Your task to perform on an android device: Open the web browser Image 0: 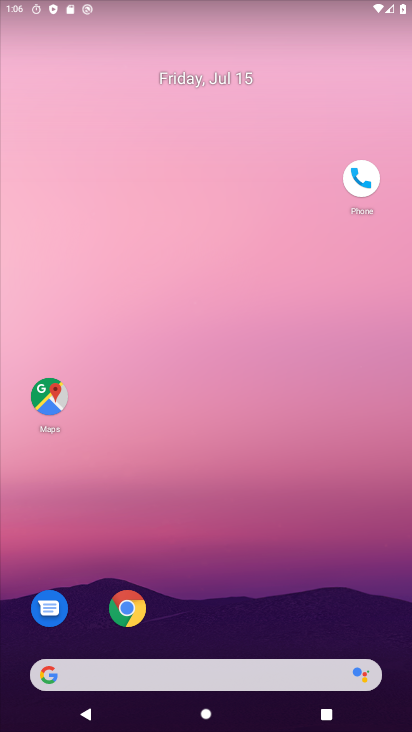
Step 0: drag from (214, 615) to (317, 130)
Your task to perform on an android device: Open the web browser Image 1: 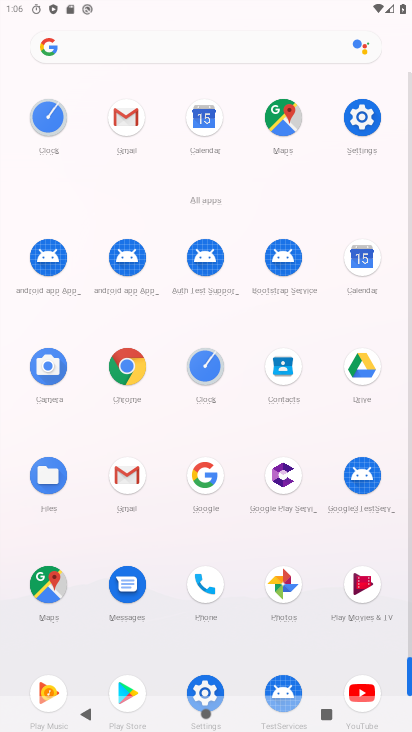
Step 1: click (132, 344)
Your task to perform on an android device: Open the web browser Image 2: 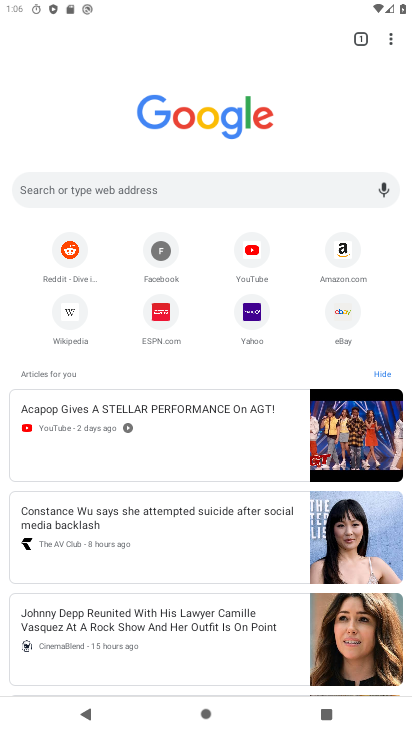
Step 2: task complete